Your task to perform on an android device: open app "ZOOM Cloud Meetings" Image 0: 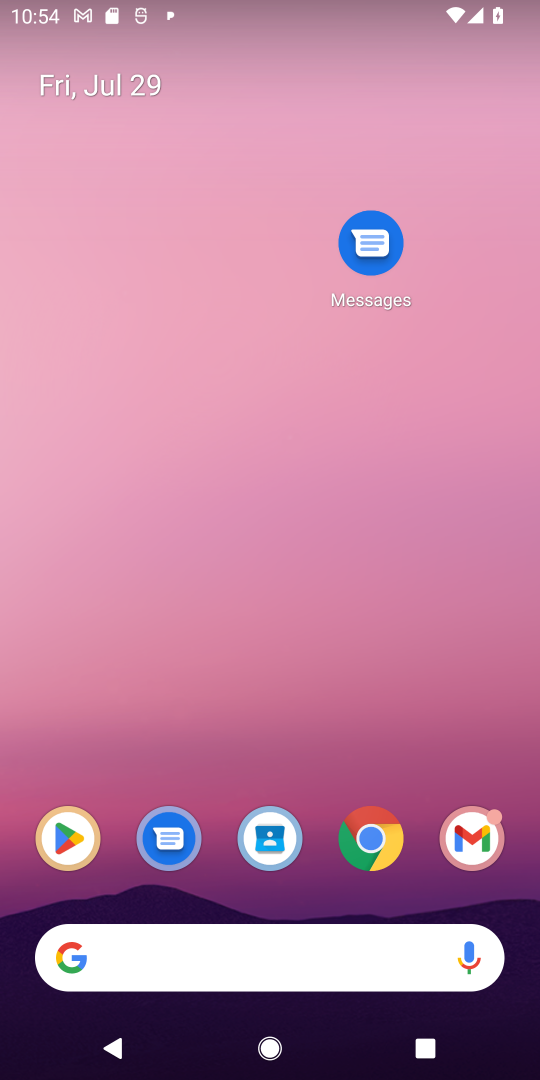
Step 0: click (68, 852)
Your task to perform on an android device: open app "ZOOM Cloud Meetings" Image 1: 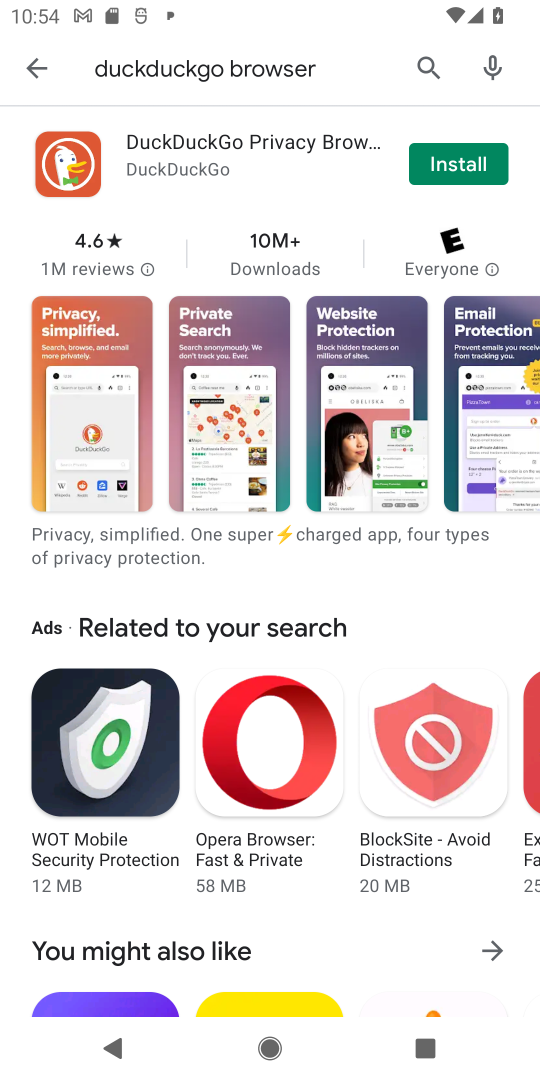
Step 1: click (206, 69)
Your task to perform on an android device: open app "ZOOM Cloud Meetings" Image 2: 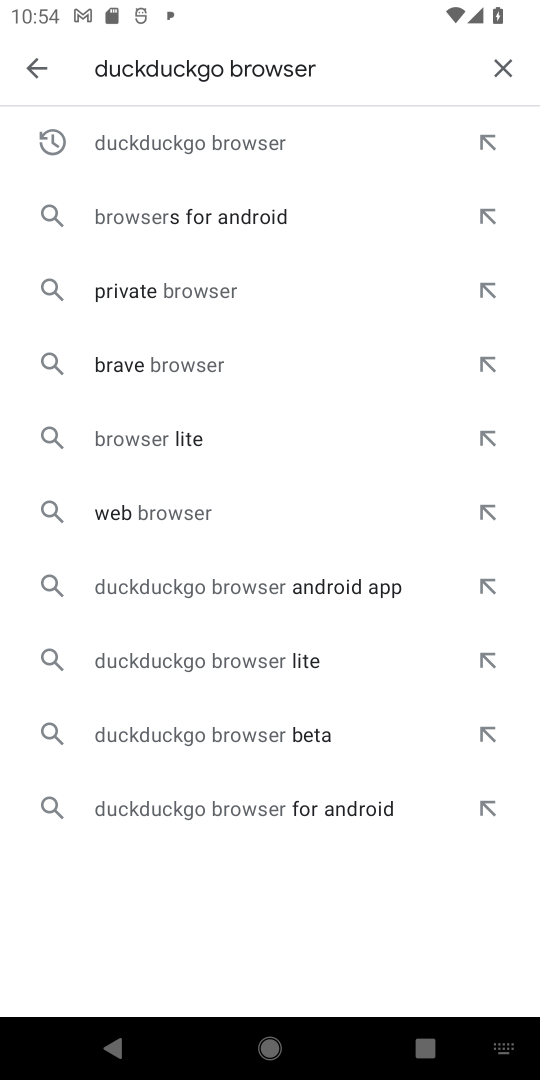
Step 2: click (501, 63)
Your task to perform on an android device: open app "ZOOM Cloud Meetings" Image 3: 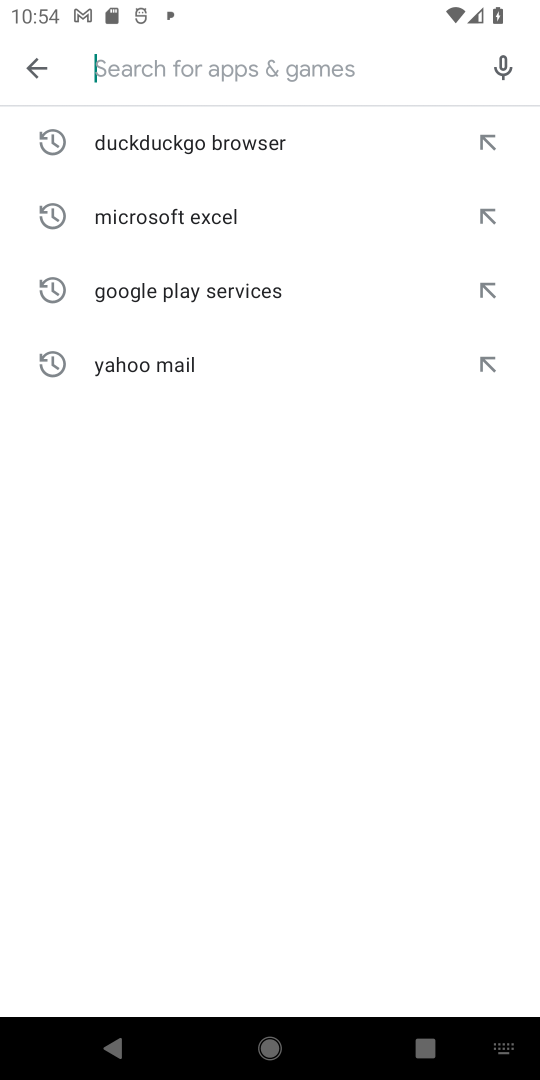
Step 3: type "zoom cloud meetings"
Your task to perform on an android device: open app "ZOOM Cloud Meetings" Image 4: 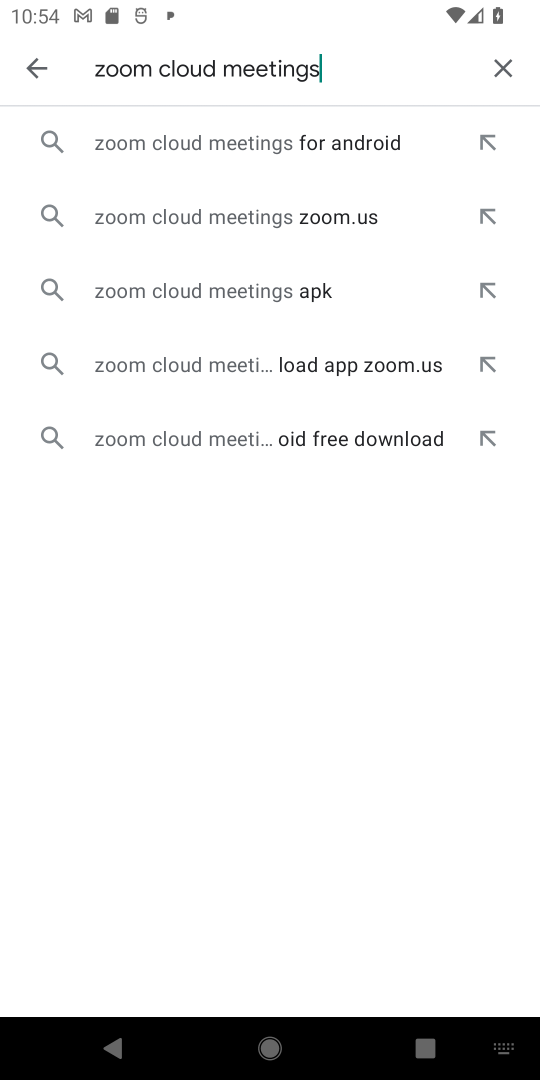
Step 4: click (171, 233)
Your task to perform on an android device: open app "ZOOM Cloud Meetings" Image 5: 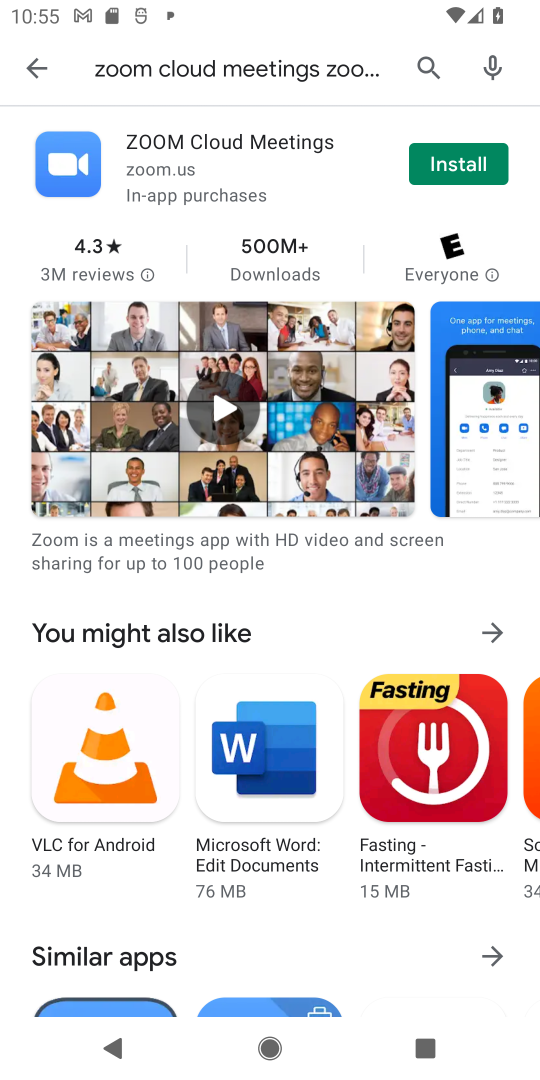
Step 5: task complete